Your task to perform on an android device: Go to notification settings Image 0: 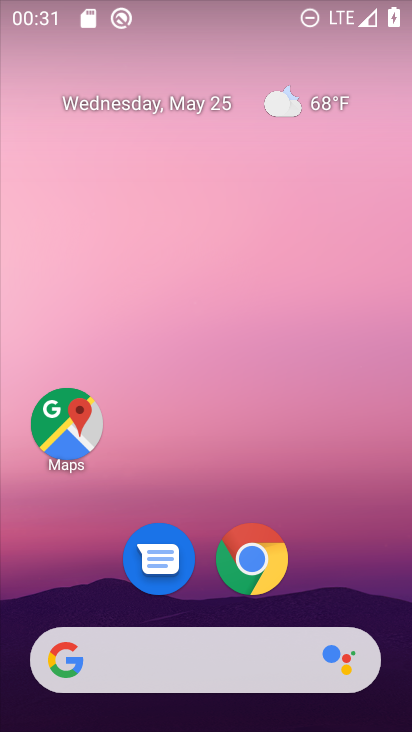
Step 0: drag from (376, 595) to (312, 117)
Your task to perform on an android device: Go to notification settings Image 1: 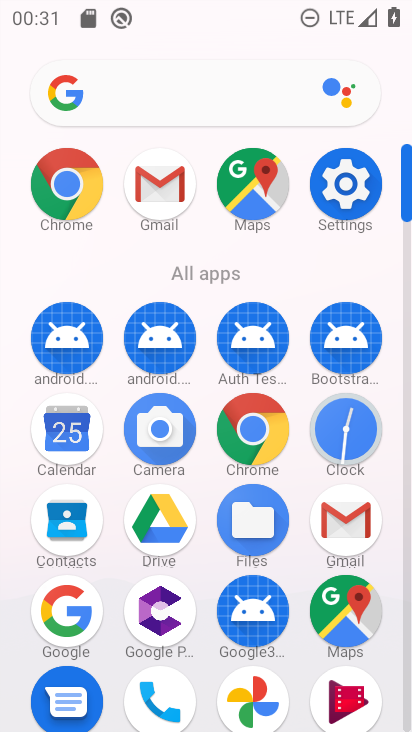
Step 1: click (407, 673)
Your task to perform on an android device: Go to notification settings Image 2: 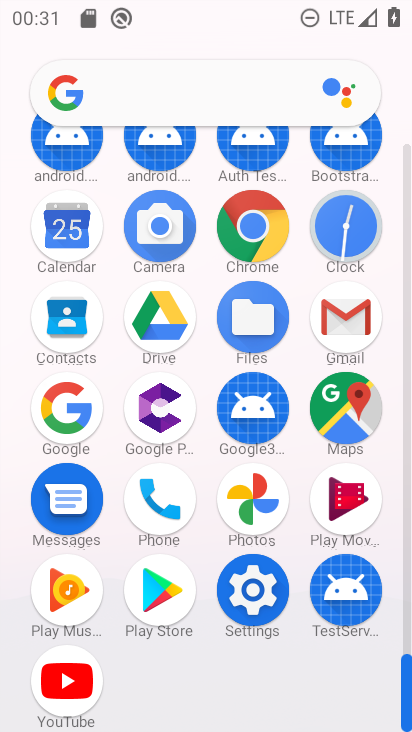
Step 2: click (249, 586)
Your task to perform on an android device: Go to notification settings Image 3: 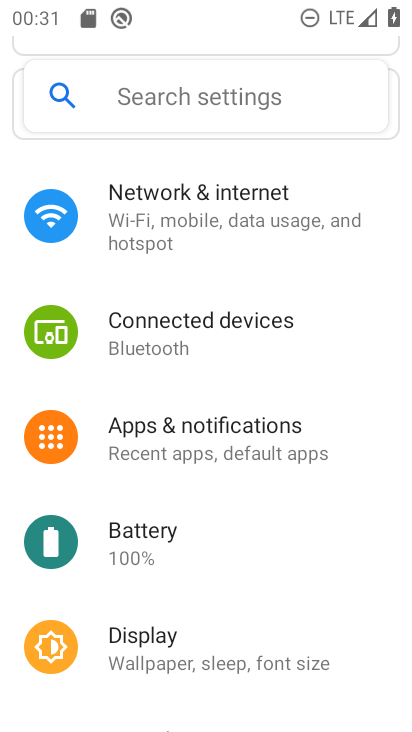
Step 3: click (159, 414)
Your task to perform on an android device: Go to notification settings Image 4: 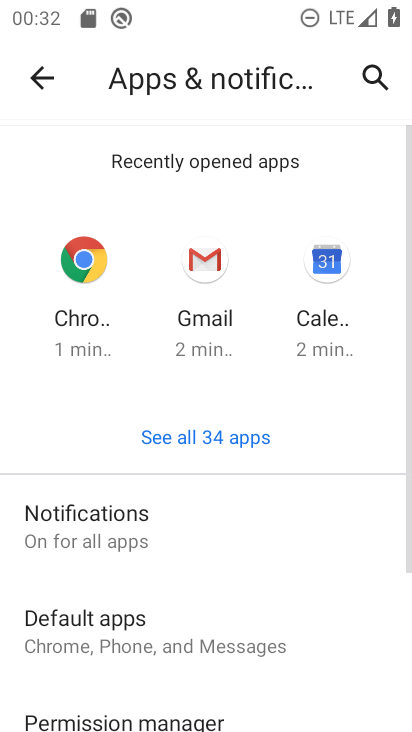
Step 4: click (79, 523)
Your task to perform on an android device: Go to notification settings Image 5: 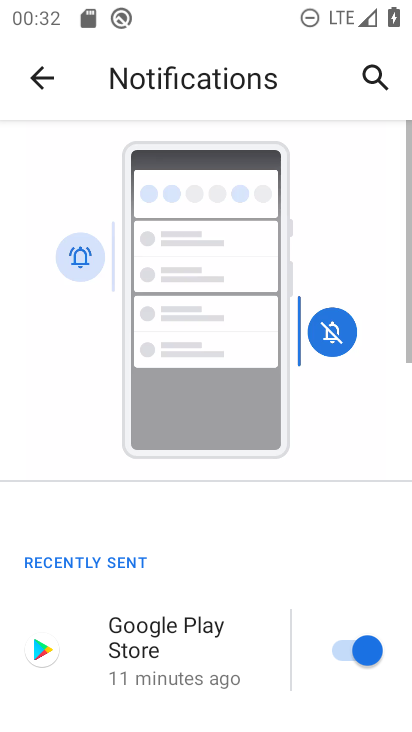
Step 5: drag from (300, 635) to (243, 239)
Your task to perform on an android device: Go to notification settings Image 6: 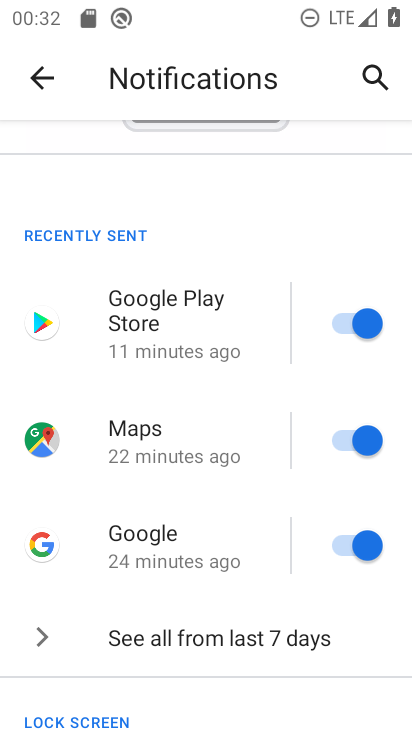
Step 6: drag from (314, 643) to (245, 207)
Your task to perform on an android device: Go to notification settings Image 7: 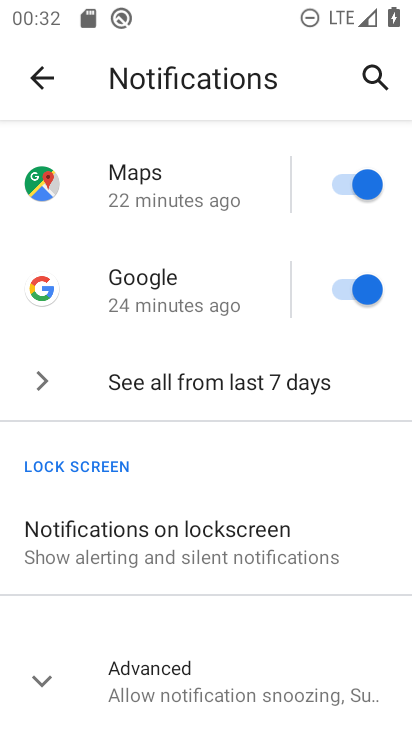
Step 7: drag from (264, 574) to (226, 238)
Your task to perform on an android device: Go to notification settings Image 8: 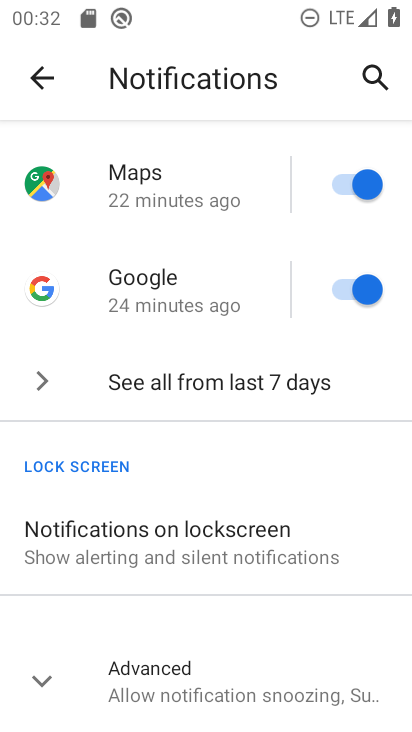
Step 8: click (37, 682)
Your task to perform on an android device: Go to notification settings Image 9: 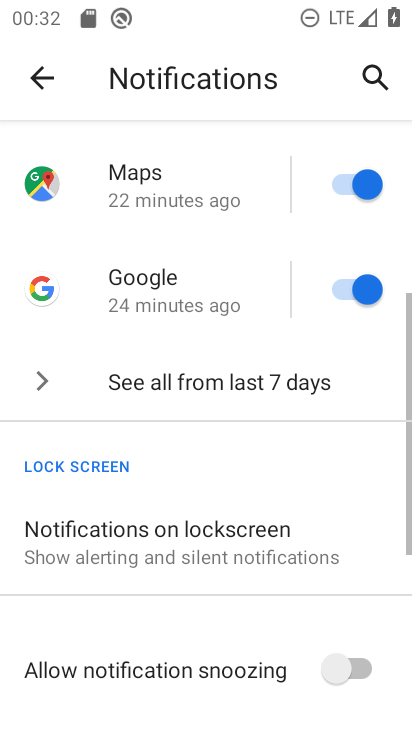
Step 9: task complete